Your task to perform on an android device: Go to Yahoo.com Image 0: 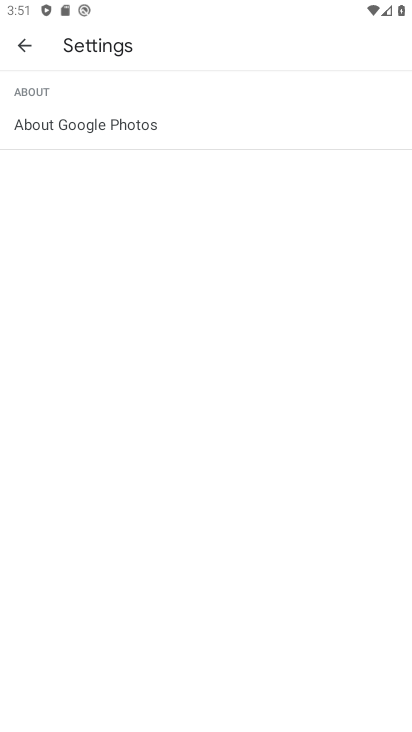
Step 0: press home button
Your task to perform on an android device: Go to Yahoo.com Image 1: 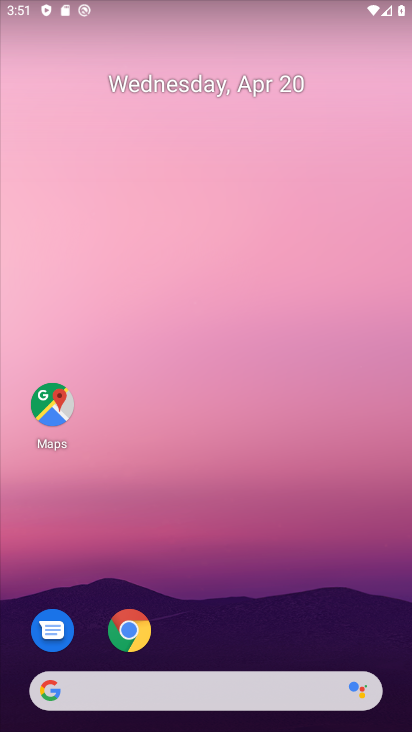
Step 1: drag from (280, 496) to (308, 25)
Your task to perform on an android device: Go to Yahoo.com Image 2: 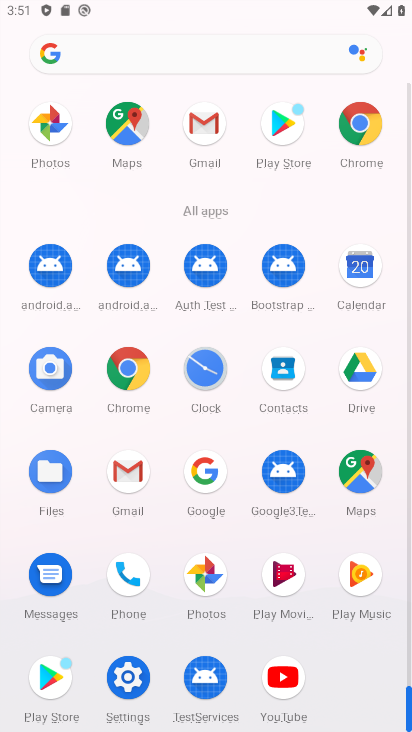
Step 2: click (131, 373)
Your task to perform on an android device: Go to Yahoo.com Image 3: 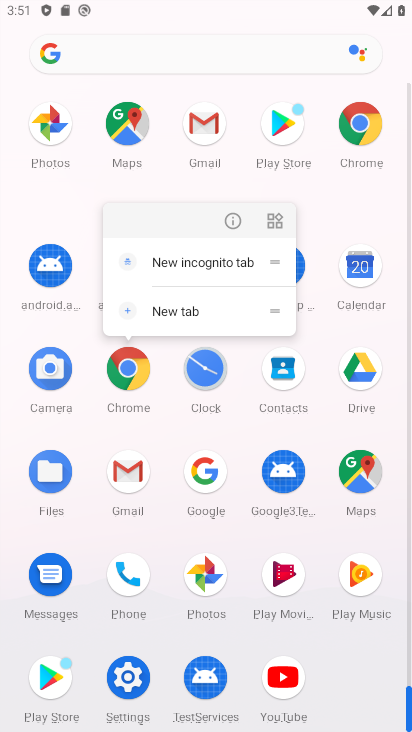
Step 3: click (138, 375)
Your task to perform on an android device: Go to Yahoo.com Image 4: 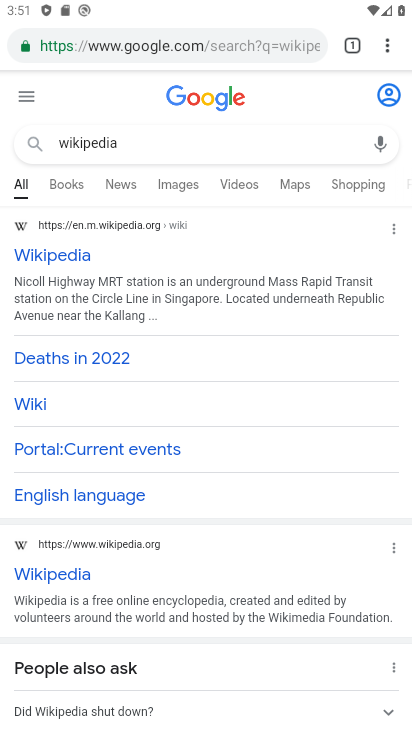
Step 4: click (302, 48)
Your task to perform on an android device: Go to Yahoo.com Image 5: 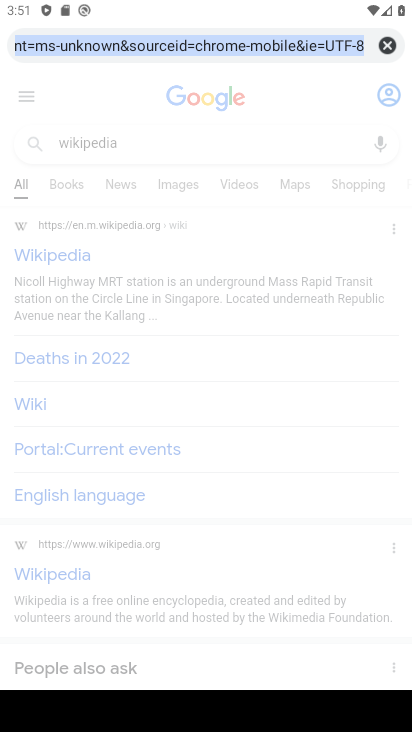
Step 5: click (379, 41)
Your task to perform on an android device: Go to Yahoo.com Image 6: 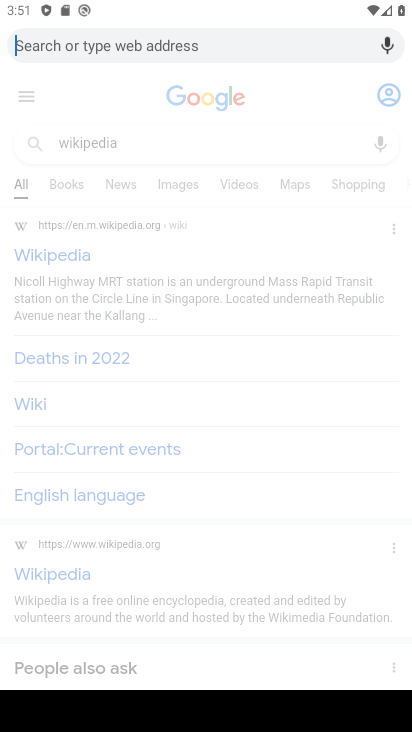
Step 6: type "yahoo.com"
Your task to perform on an android device: Go to Yahoo.com Image 7: 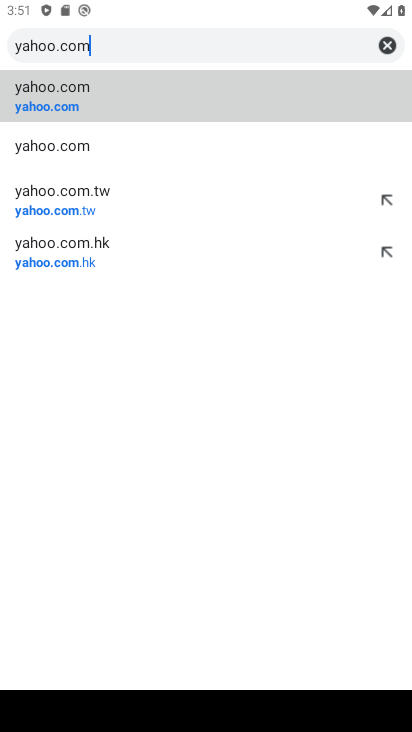
Step 7: click (231, 98)
Your task to perform on an android device: Go to Yahoo.com Image 8: 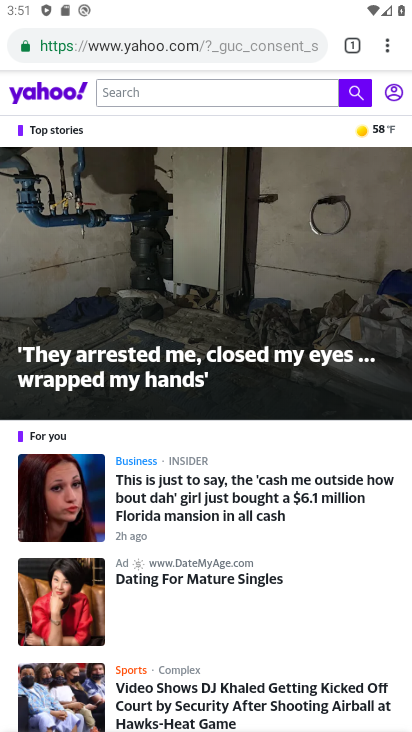
Step 8: task complete